Your task to perform on an android device: see tabs open on other devices in the chrome app Image 0: 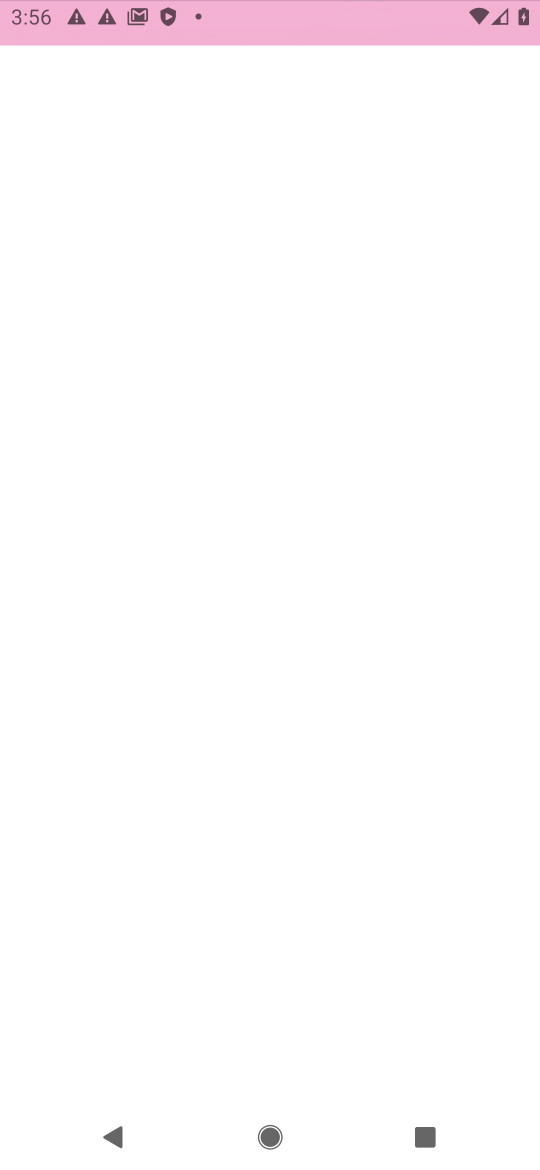
Step 0: press back button
Your task to perform on an android device: see tabs open on other devices in the chrome app Image 1: 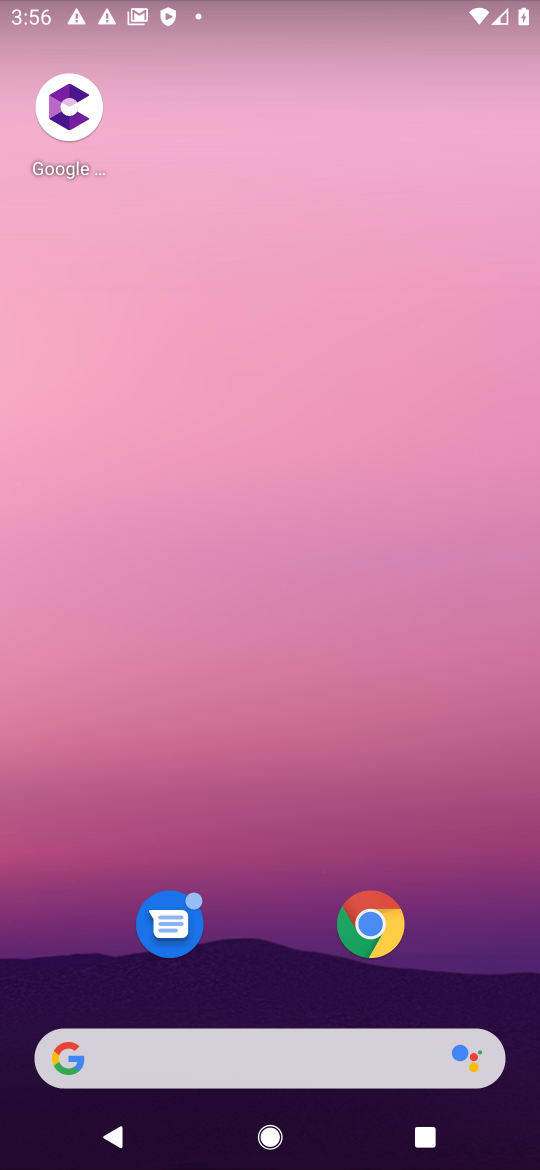
Step 1: click (342, 924)
Your task to perform on an android device: see tabs open on other devices in the chrome app Image 2: 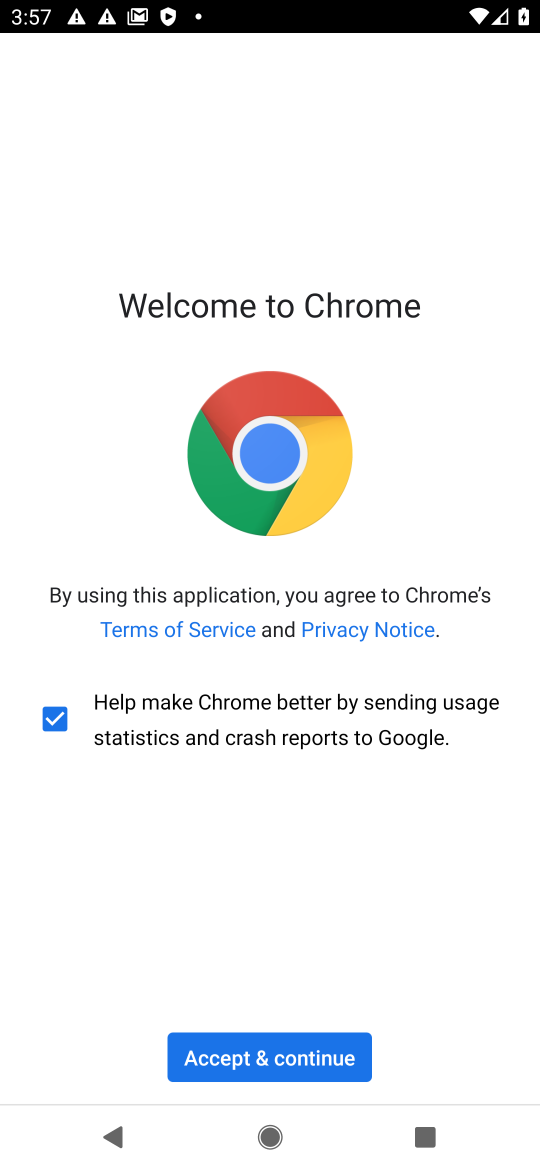
Step 2: click (240, 1073)
Your task to perform on an android device: see tabs open on other devices in the chrome app Image 3: 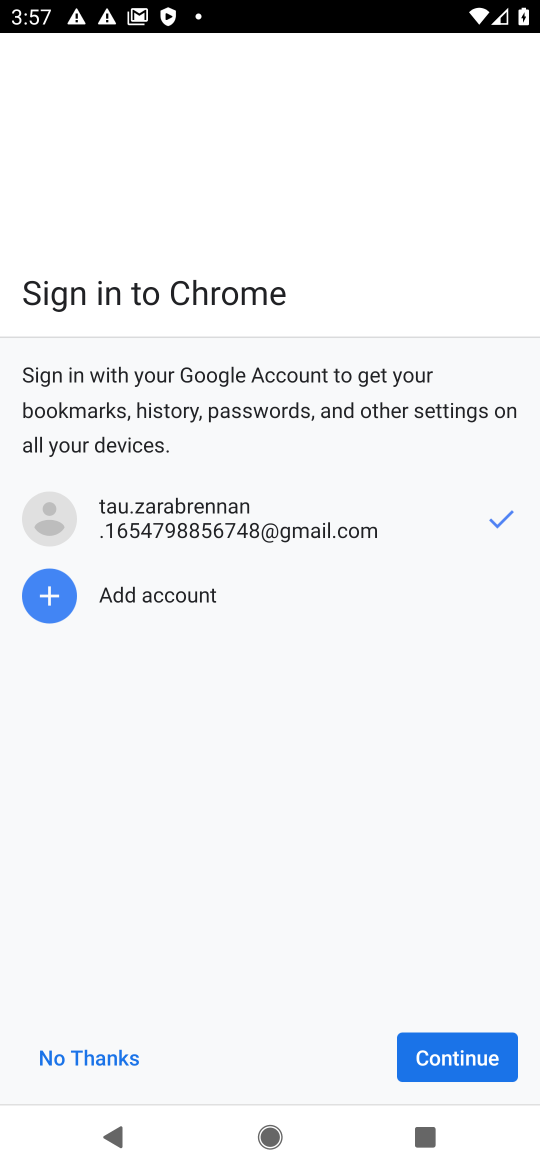
Step 3: press home button
Your task to perform on an android device: see tabs open on other devices in the chrome app Image 4: 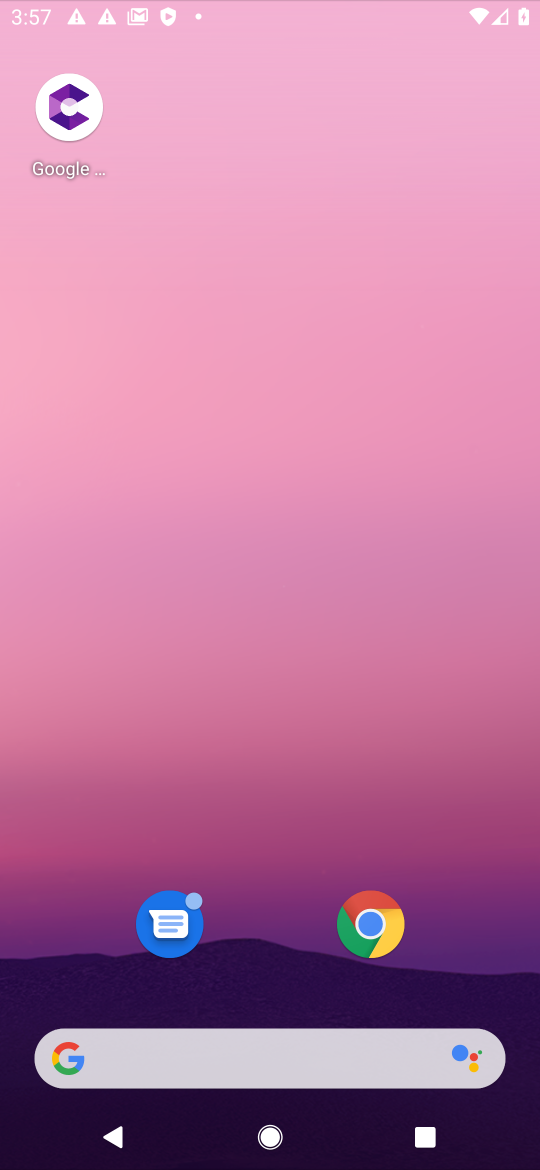
Step 4: click (348, 914)
Your task to perform on an android device: see tabs open on other devices in the chrome app Image 5: 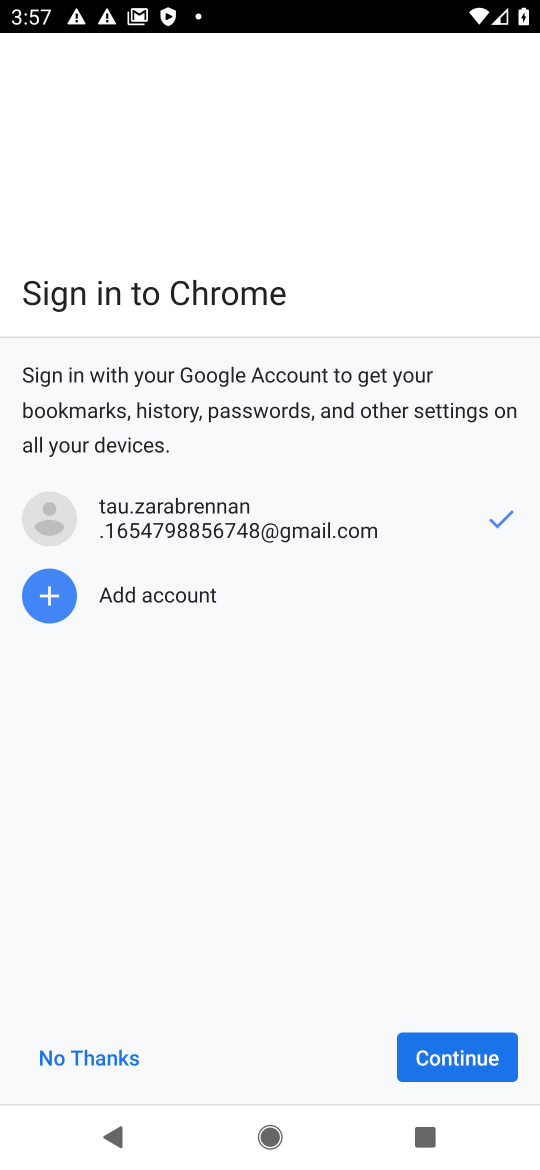
Step 5: click (429, 1062)
Your task to perform on an android device: see tabs open on other devices in the chrome app Image 6: 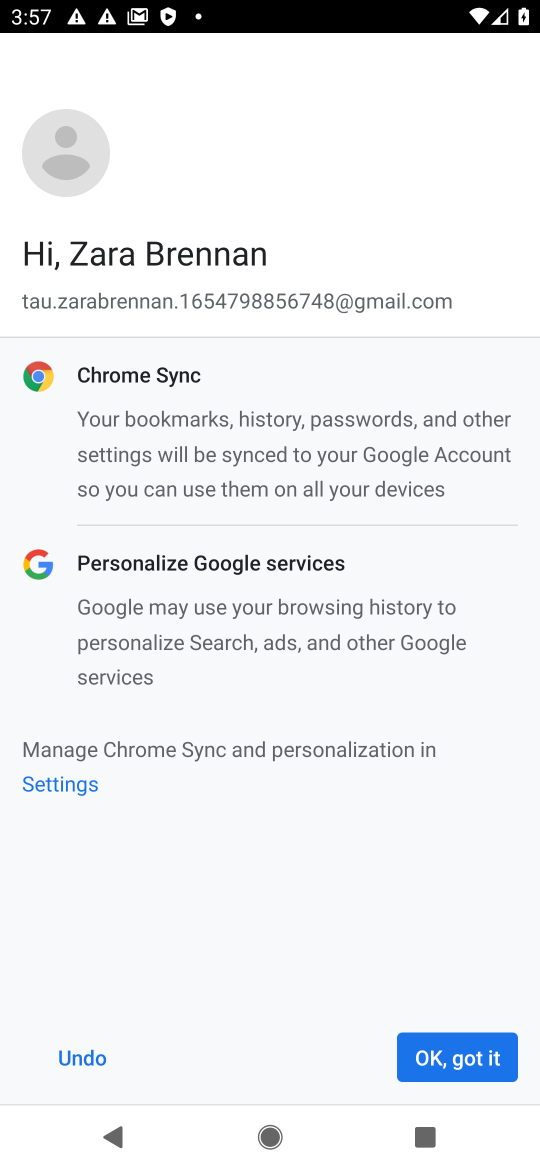
Step 6: click (454, 1068)
Your task to perform on an android device: see tabs open on other devices in the chrome app Image 7: 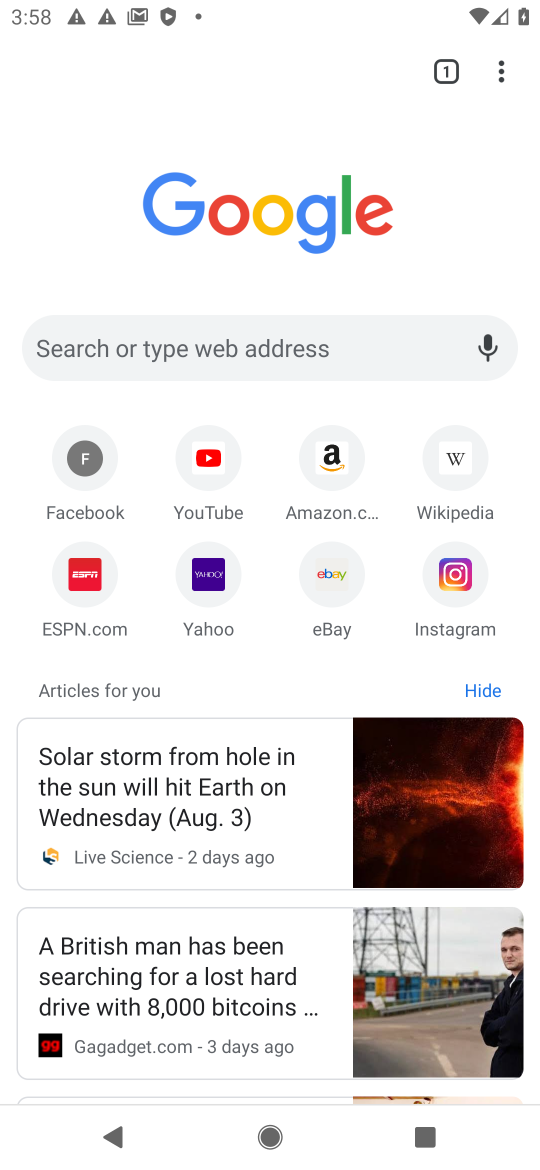
Step 7: click (503, 76)
Your task to perform on an android device: see tabs open on other devices in the chrome app Image 8: 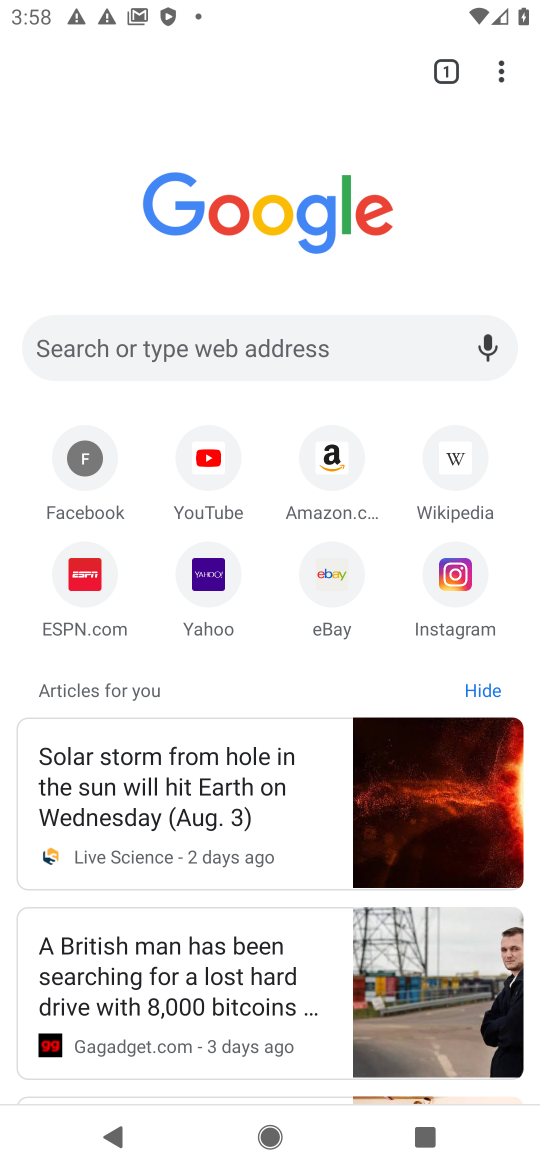
Step 8: task complete